Your task to perform on an android device: Show me the alarms in the clock app Image 0: 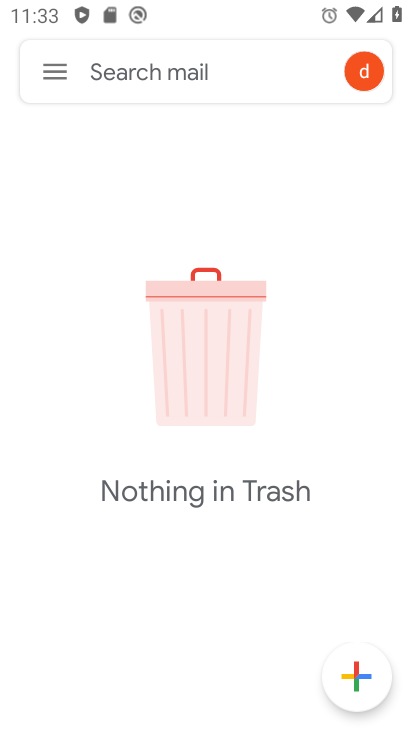
Step 0: press home button
Your task to perform on an android device: Show me the alarms in the clock app Image 1: 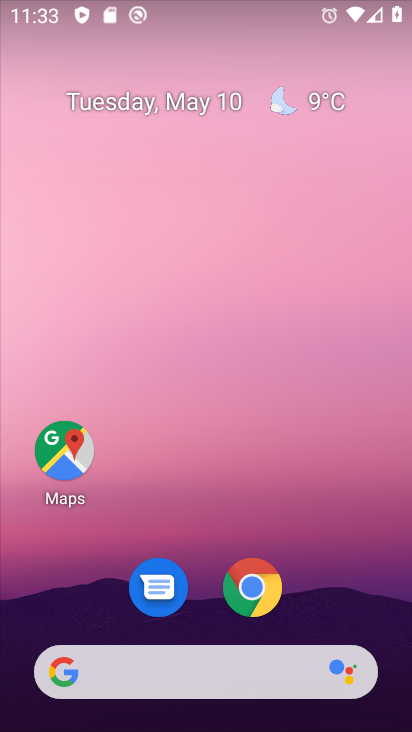
Step 1: drag from (353, 614) to (342, 29)
Your task to perform on an android device: Show me the alarms in the clock app Image 2: 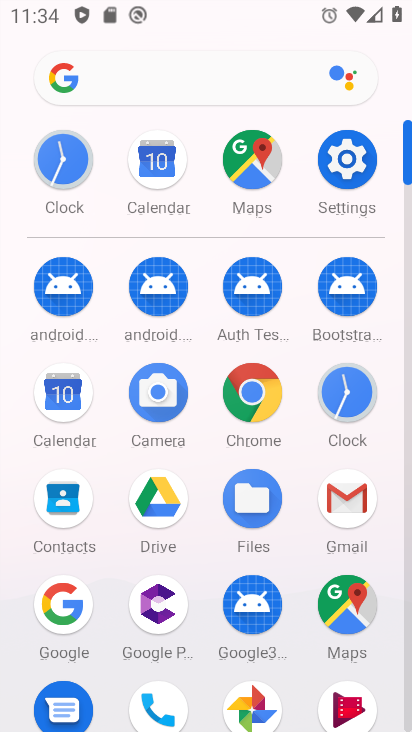
Step 2: click (61, 167)
Your task to perform on an android device: Show me the alarms in the clock app Image 3: 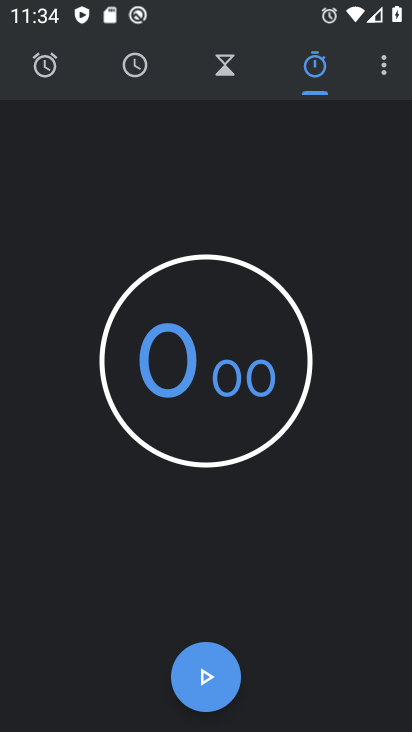
Step 3: click (46, 49)
Your task to perform on an android device: Show me the alarms in the clock app Image 4: 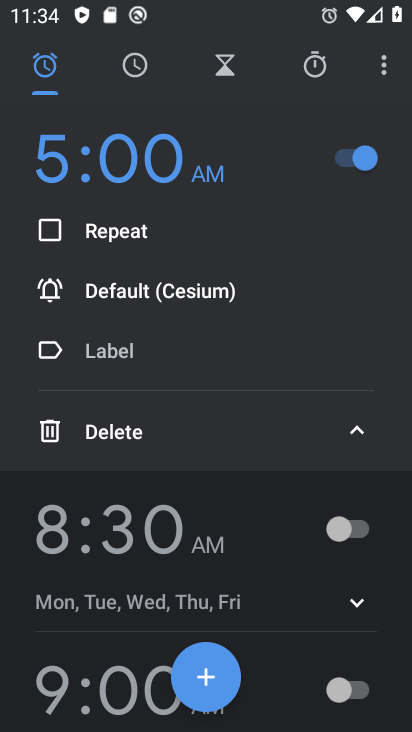
Step 4: task complete